Your task to perform on an android device: Open privacy settings Image 0: 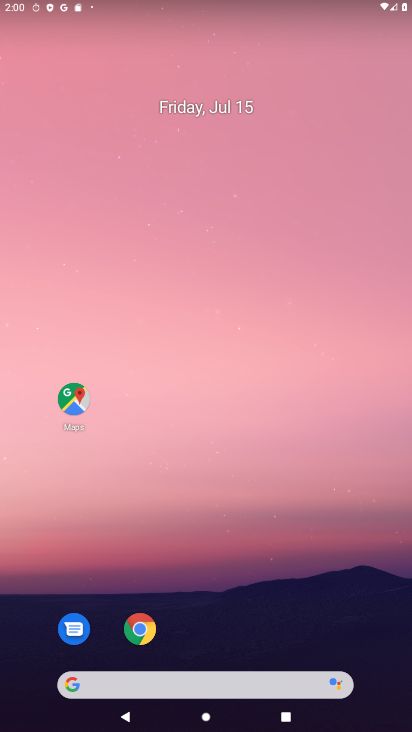
Step 0: drag from (207, 542) to (218, 38)
Your task to perform on an android device: Open privacy settings Image 1: 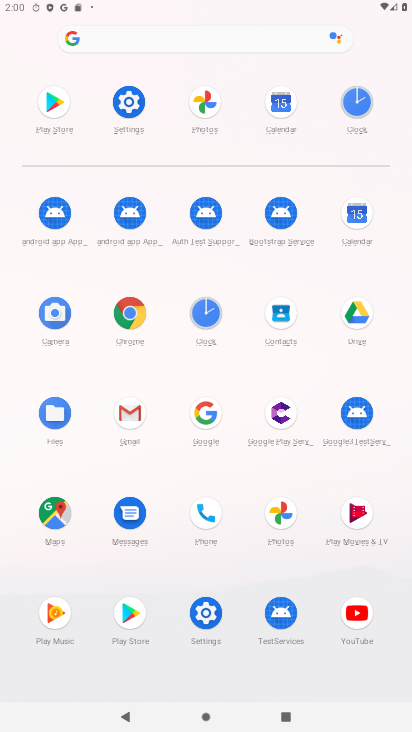
Step 1: click (120, 105)
Your task to perform on an android device: Open privacy settings Image 2: 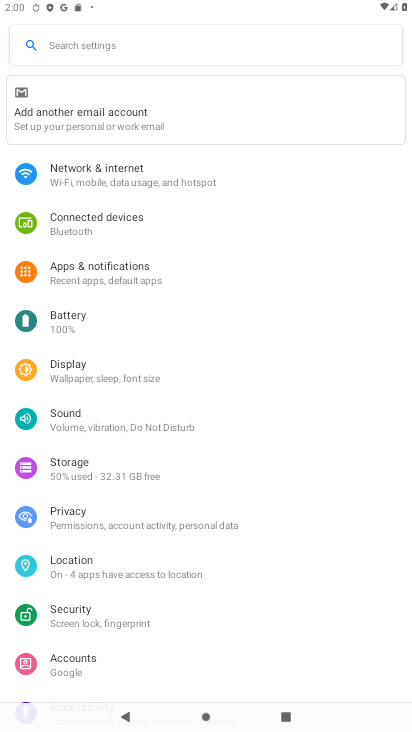
Step 2: click (67, 519)
Your task to perform on an android device: Open privacy settings Image 3: 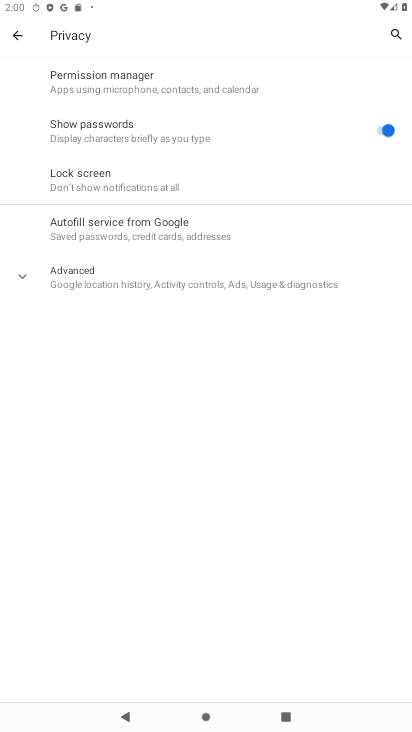
Step 3: task complete